Your task to perform on an android device: open the mobile data screen to see how much data has been used Image 0: 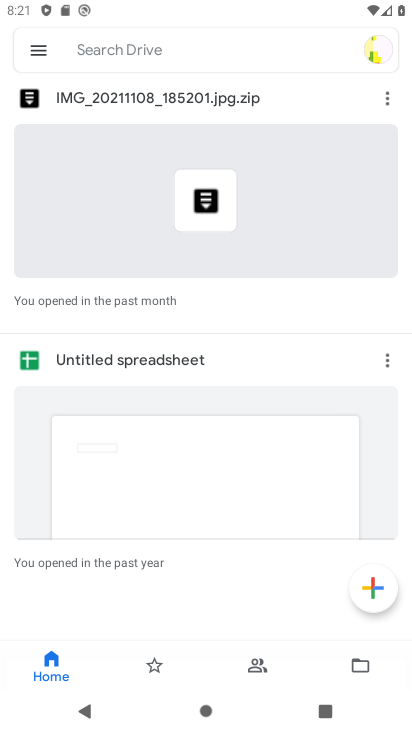
Step 0: press home button
Your task to perform on an android device: open the mobile data screen to see how much data has been used Image 1: 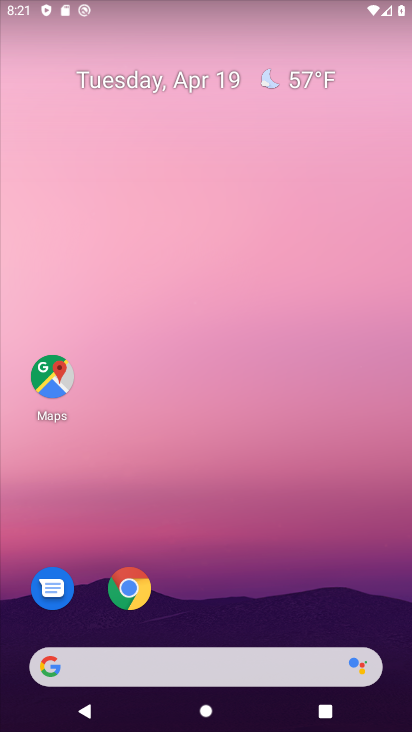
Step 1: drag from (249, 606) to (213, 89)
Your task to perform on an android device: open the mobile data screen to see how much data has been used Image 2: 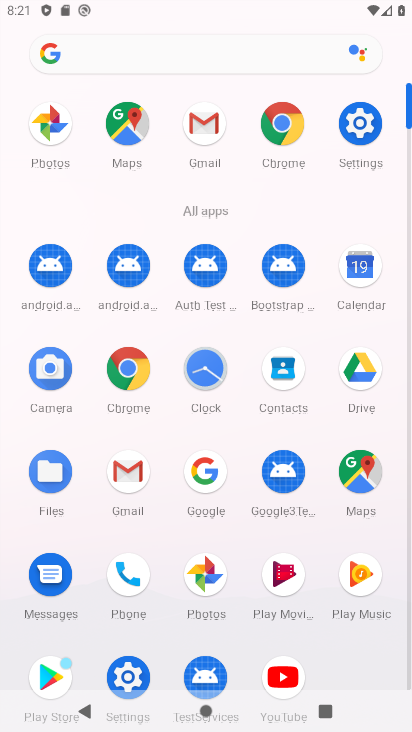
Step 2: click (353, 133)
Your task to perform on an android device: open the mobile data screen to see how much data has been used Image 3: 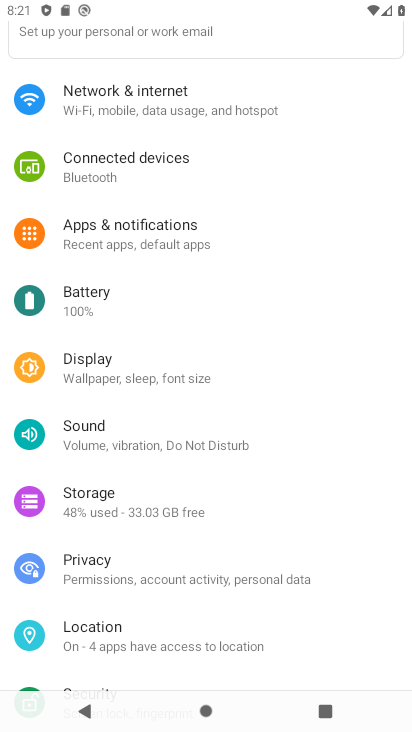
Step 3: click (161, 99)
Your task to perform on an android device: open the mobile data screen to see how much data has been used Image 4: 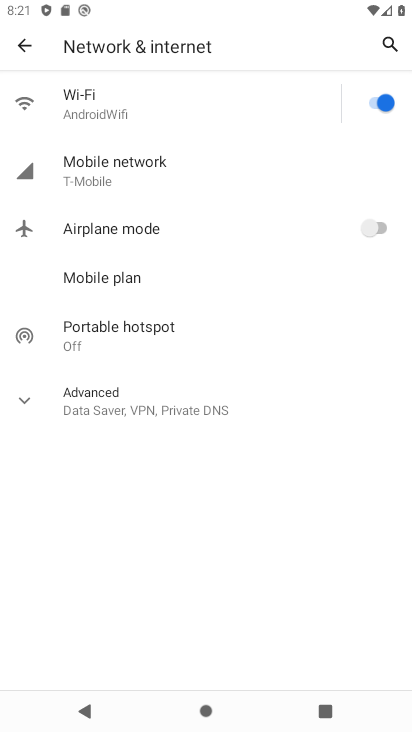
Step 4: click (146, 167)
Your task to perform on an android device: open the mobile data screen to see how much data has been used Image 5: 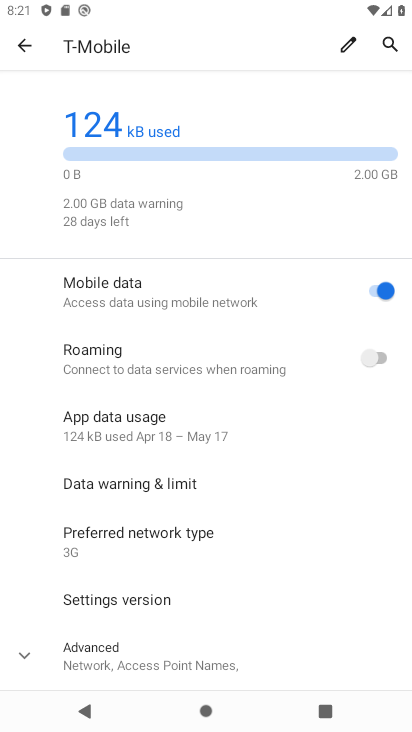
Step 5: click (121, 419)
Your task to perform on an android device: open the mobile data screen to see how much data has been used Image 6: 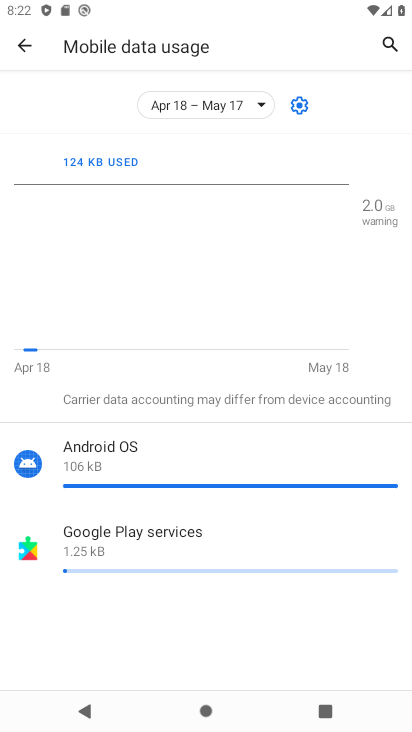
Step 6: task complete